Your task to perform on an android device: Search for vegetarian restaurants on Maps Image 0: 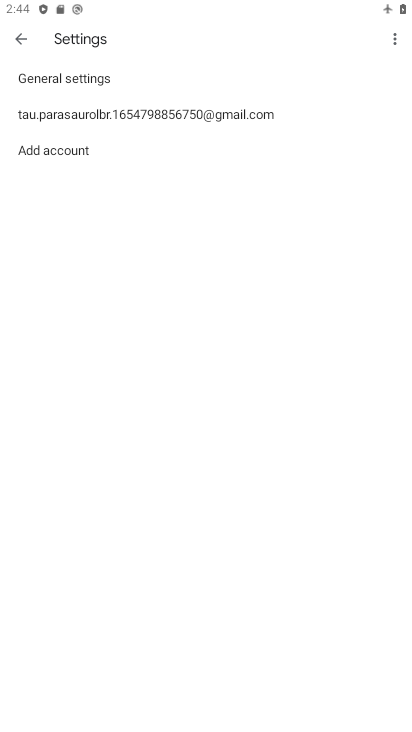
Step 0: press home button
Your task to perform on an android device: Search for vegetarian restaurants on Maps Image 1: 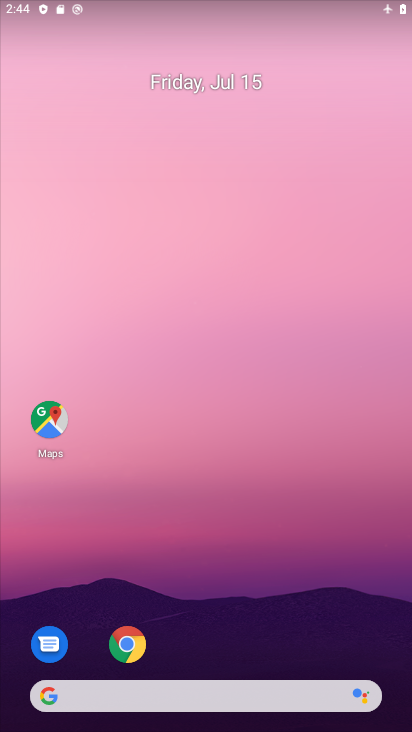
Step 1: drag from (258, 613) to (214, 43)
Your task to perform on an android device: Search for vegetarian restaurants on Maps Image 2: 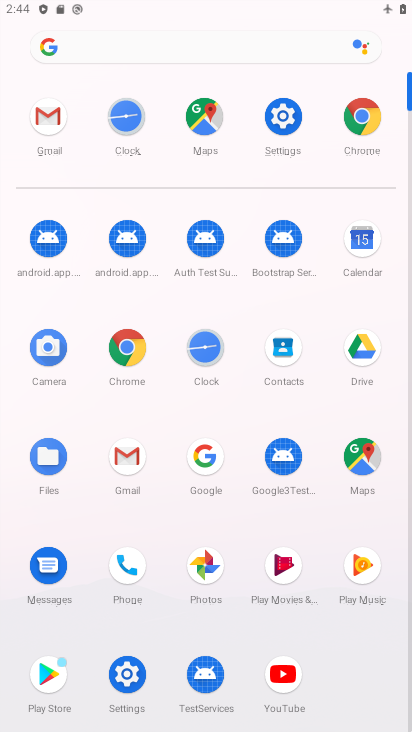
Step 2: click (368, 452)
Your task to perform on an android device: Search for vegetarian restaurants on Maps Image 3: 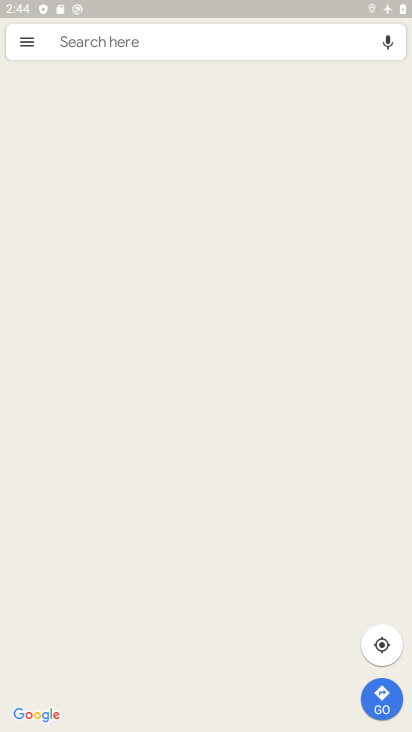
Step 3: click (162, 41)
Your task to perform on an android device: Search for vegetarian restaurants on Maps Image 4: 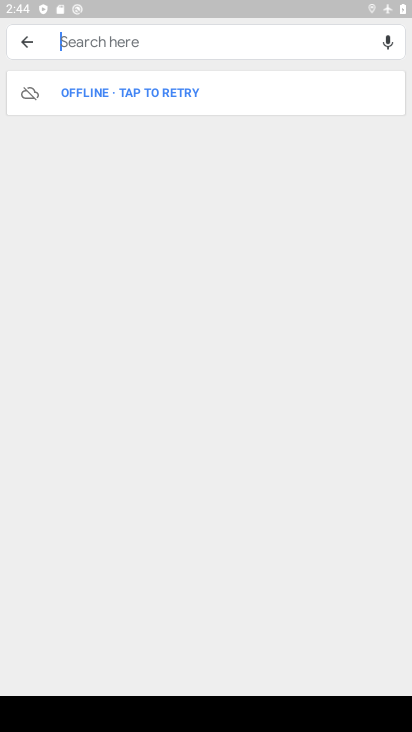
Step 4: task complete